Your task to perform on an android device: toggle notification dots Image 0: 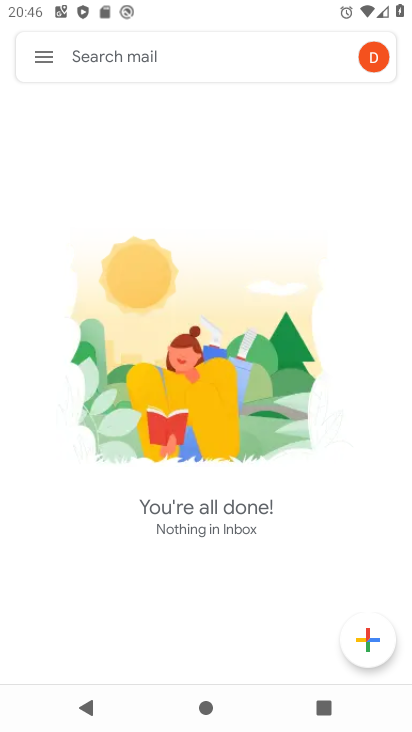
Step 0: press home button
Your task to perform on an android device: toggle notification dots Image 1: 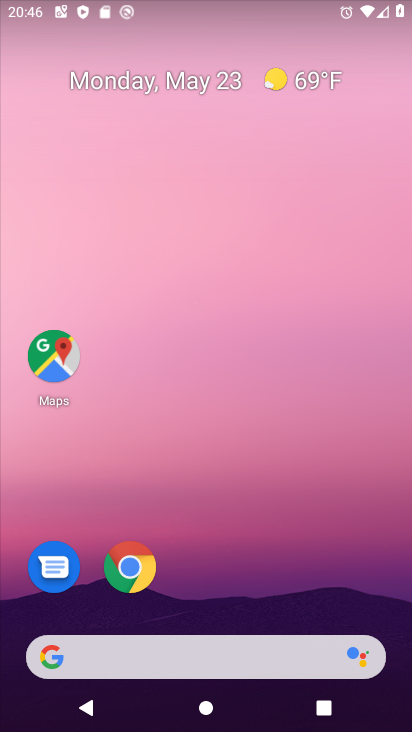
Step 1: drag from (230, 594) to (229, 135)
Your task to perform on an android device: toggle notification dots Image 2: 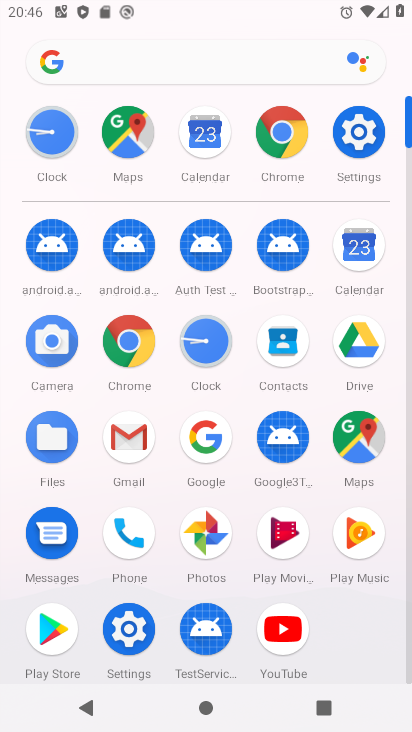
Step 2: click (137, 643)
Your task to perform on an android device: toggle notification dots Image 3: 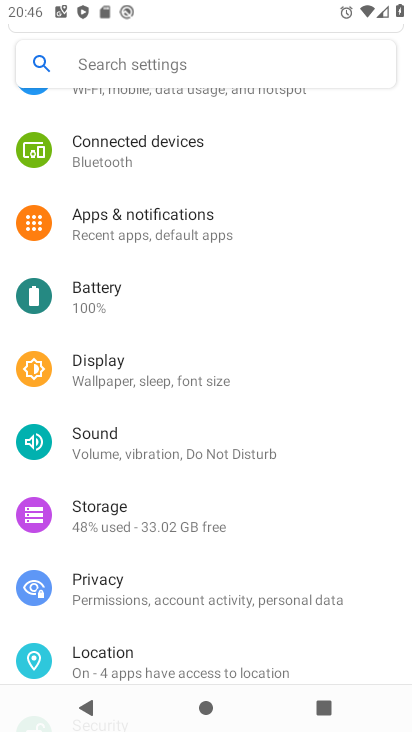
Step 3: click (161, 227)
Your task to perform on an android device: toggle notification dots Image 4: 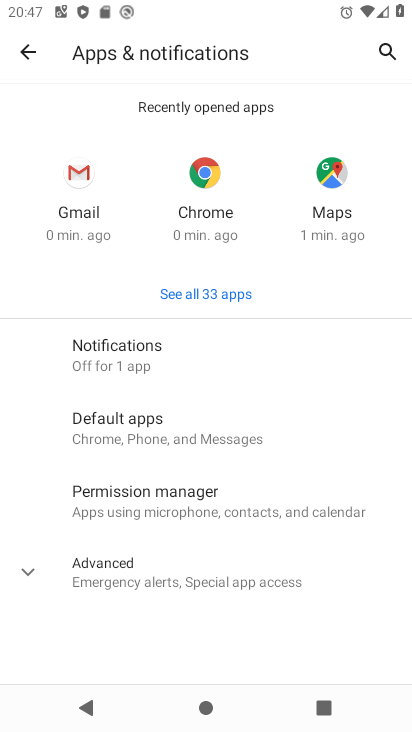
Step 4: click (146, 369)
Your task to perform on an android device: toggle notification dots Image 5: 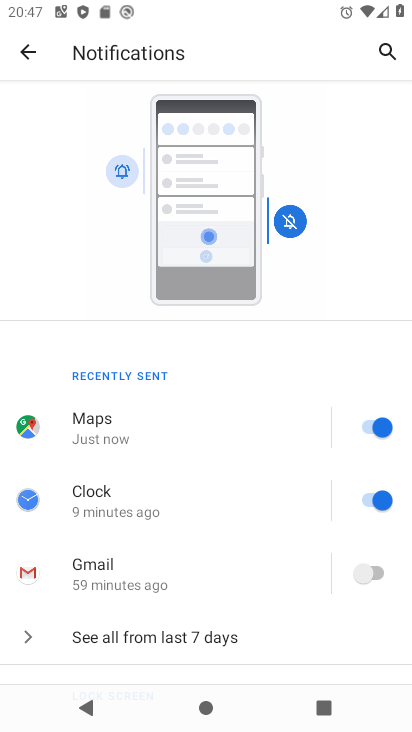
Step 5: drag from (146, 565) to (194, 274)
Your task to perform on an android device: toggle notification dots Image 6: 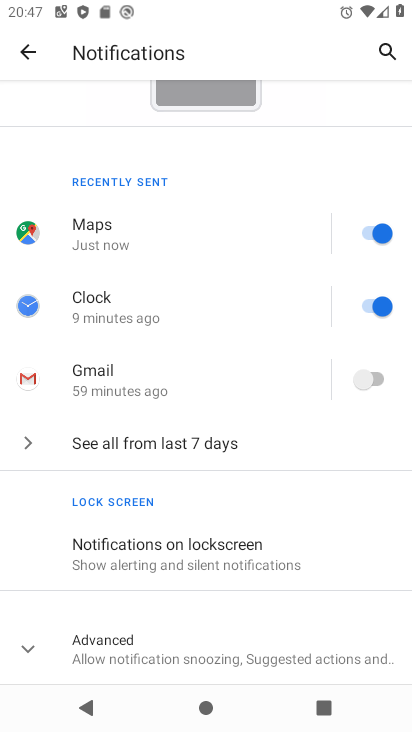
Step 6: click (144, 647)
Your task to perform on an android device: toggle notification dots Image 7: 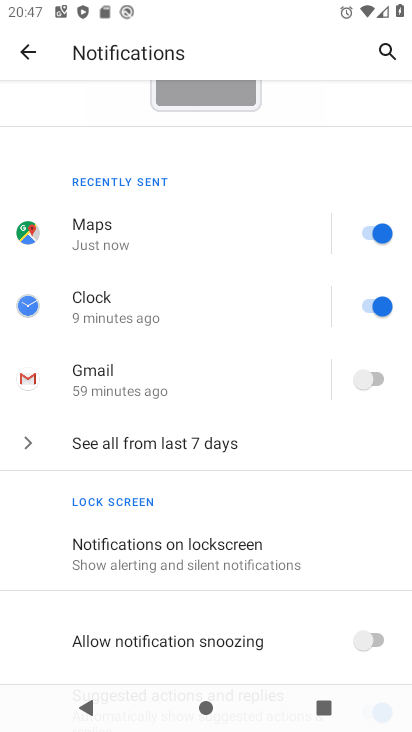
Step 7: drag from (278, 642) to (282, 343)
Your task to perform on an android device: toggle notification dots Image 8: 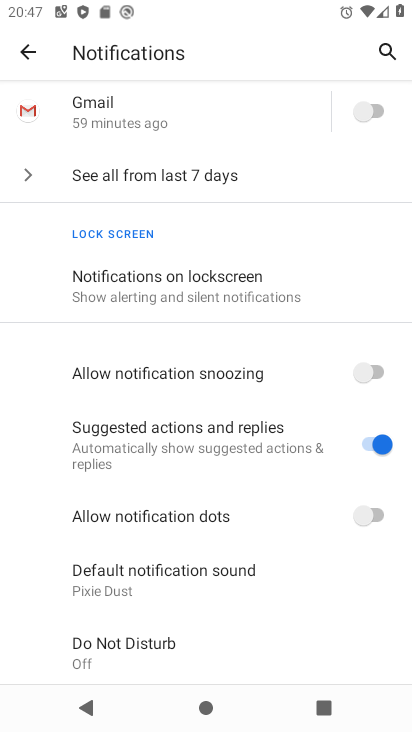
Step 8: click (374, 510)
Your task to perform on an android device: toggle notification dots Image 9: 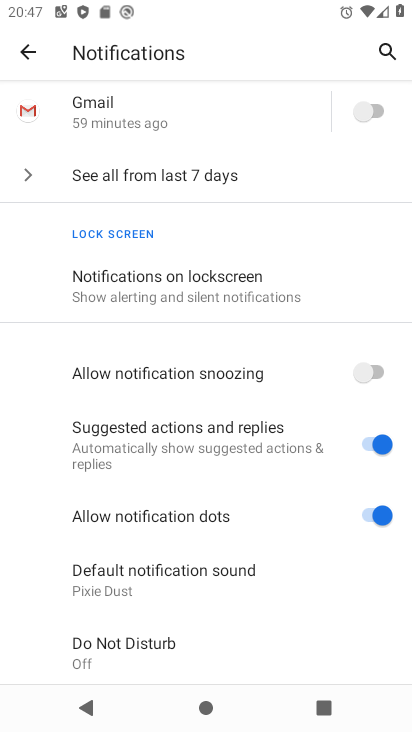
Step 9: task complete